Your task to perform on an android device: check battery use Image 0: 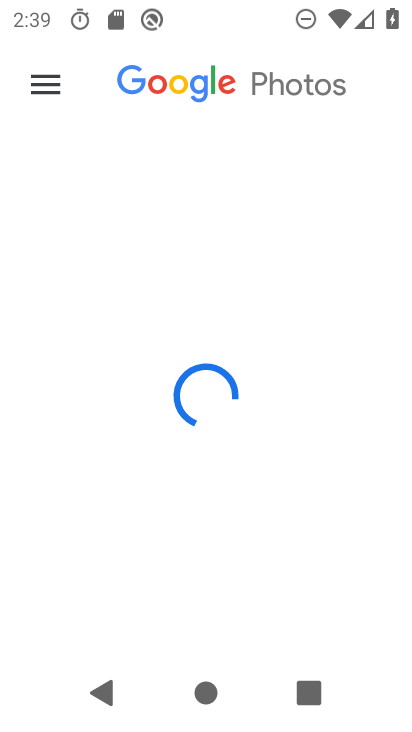
Step 0: press home button
Your task to perform on an android device: check battery use Image 1: 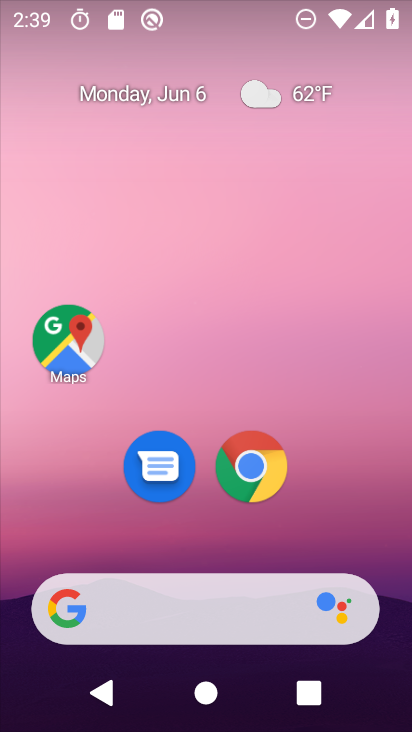
Step 1: drag from (192, 545) to (195, 125)
Your task to perform on an android device: check battery use Image 2: 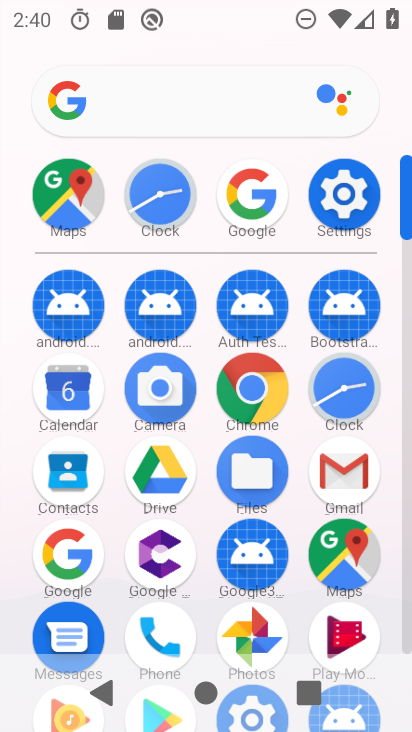
Step 2: press home button
Your task to perform on an android device: check battery use Image 3: 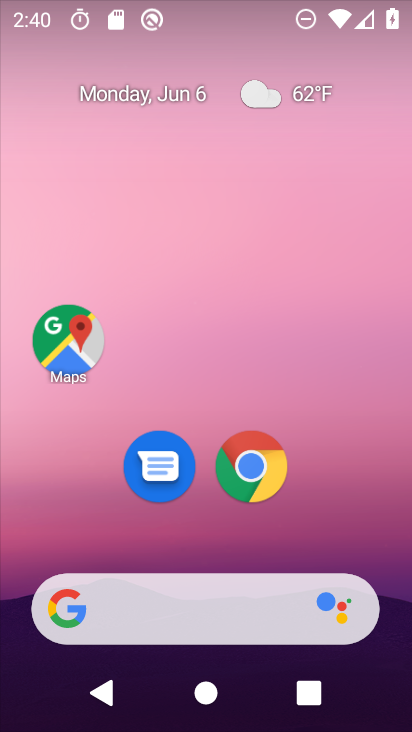
Step 3: drag from (238, 531) to (250, 273)
Your task to perform on an android device: check battery use Image 4: 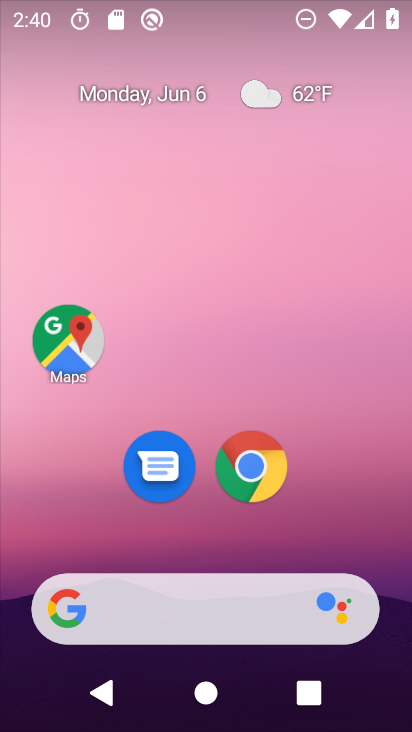
Step 4: drag from (194, 527) to (199, 243)
Your task to perform on an android device: check battery use Image 5: 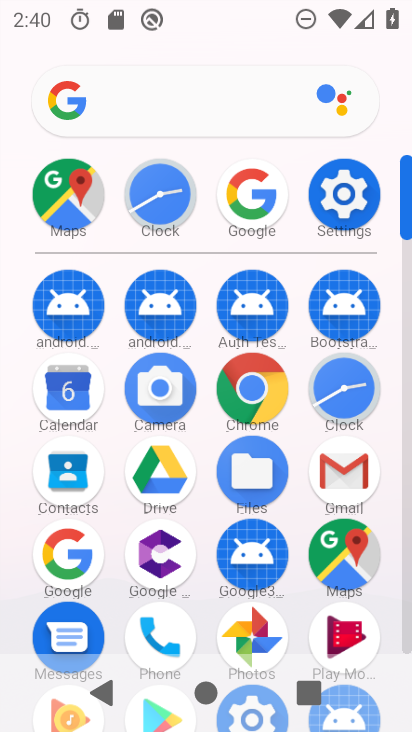
Step 5: click (348, 190)
Your task to perform on an android device: check battery use Image 6: 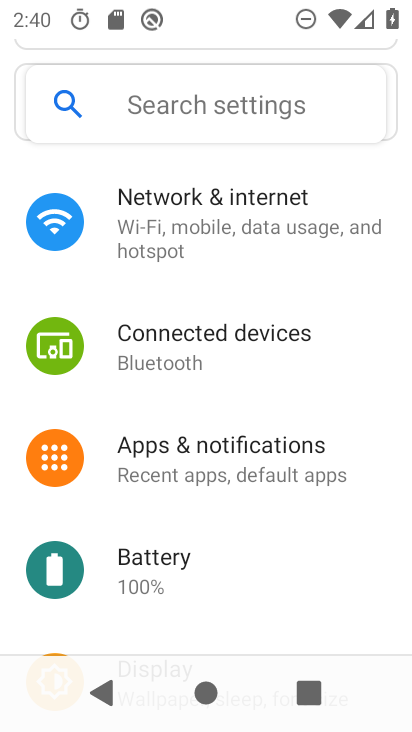
Step 6: click (138, 594)
Your task to perform on an android device: check battery use Image 7: 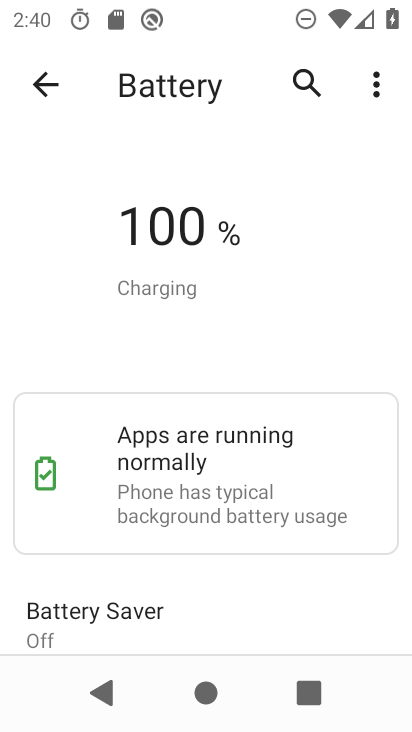
Step 7: task complete